Your task to perform on an android device: delete a single message in the gmail app Image 0: 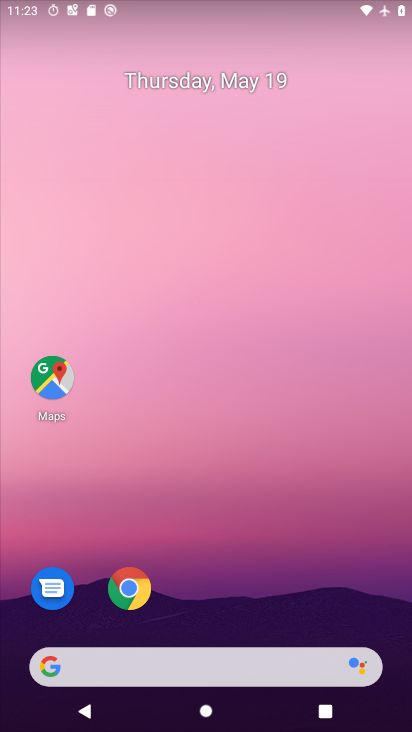
Step 0: press home button
Your task to perform on an android device: delete a single message in the gmail app Image 1: 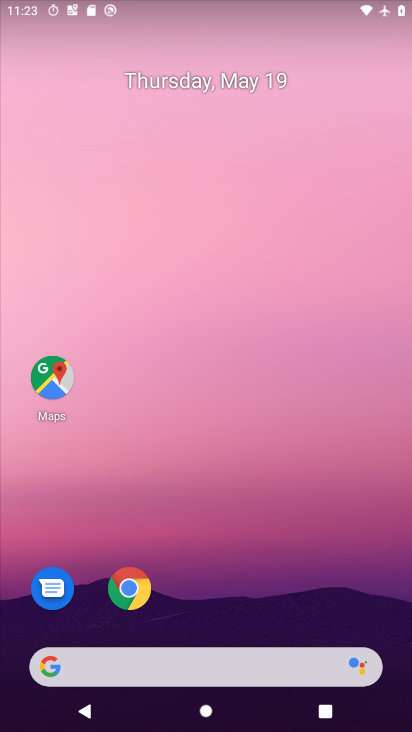
Step 1: drag from (185, 616) to (317, 162)
Your task to perform on an android device: delete a single message in the gmail app Image 2: 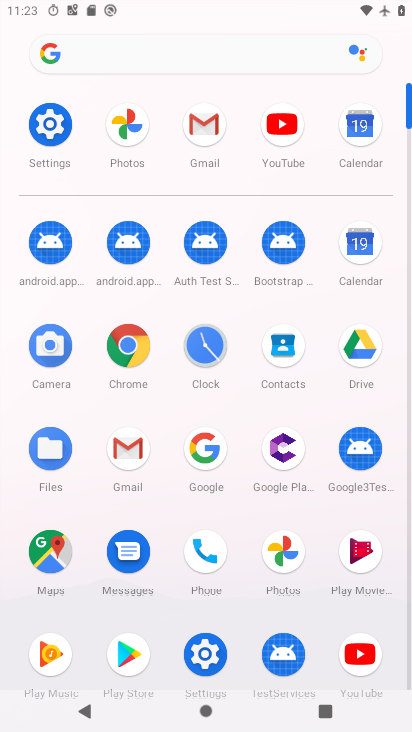
Step 2: click (206, 134)
Your task to perform on an android device: delete a single message in the gmail app Image 3: 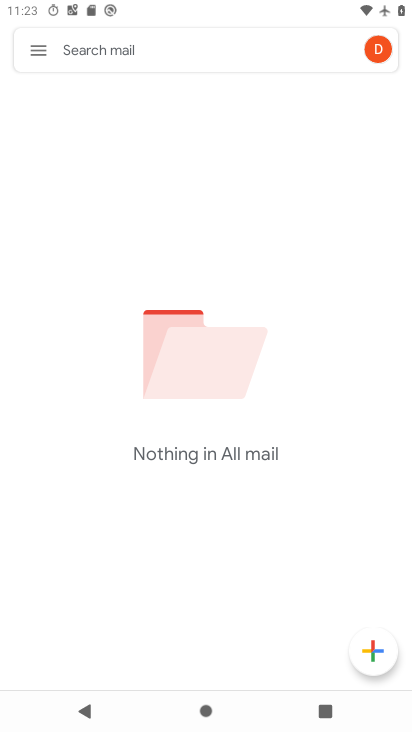
Step 3: task complete